Your task to perform on an android device: Open calendar and show me the third week of next month Image 0: 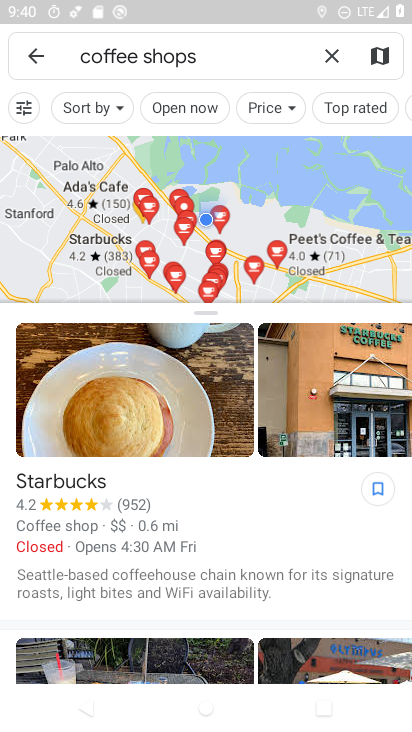
Step 0: press home button
Your task to perform on an android device: Open calendar and show me the third week of next month Image 1: 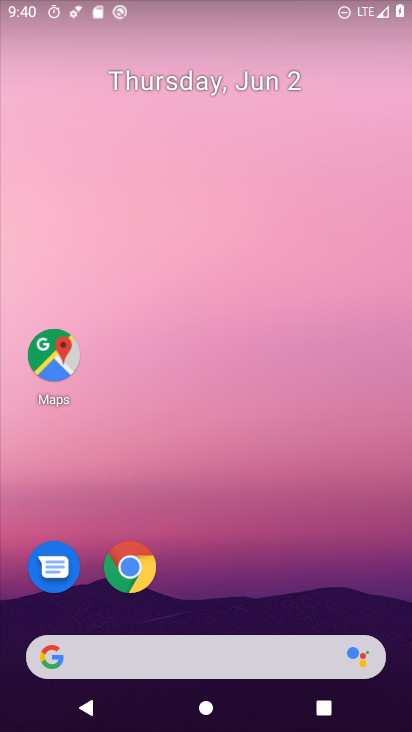
Step 1: drag from (354, 570) to (347, 96)
Your task to perform on an android device: Open calendar and show me the third week of next month Image 2: 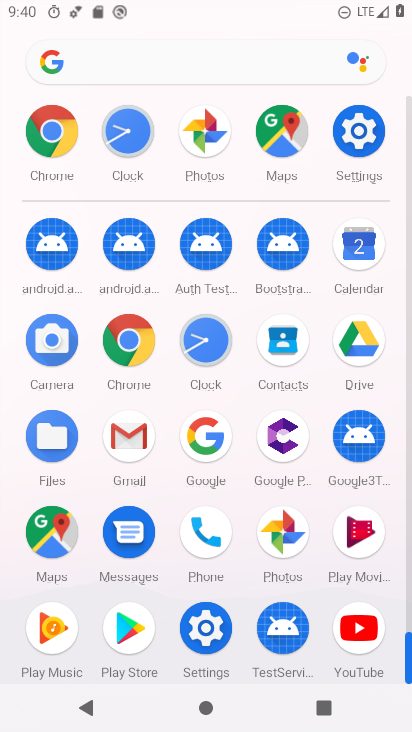
Step 2: click (363, 240)
Your task to perform on an android device: Open calendar and show me the third week of next month Image 3: 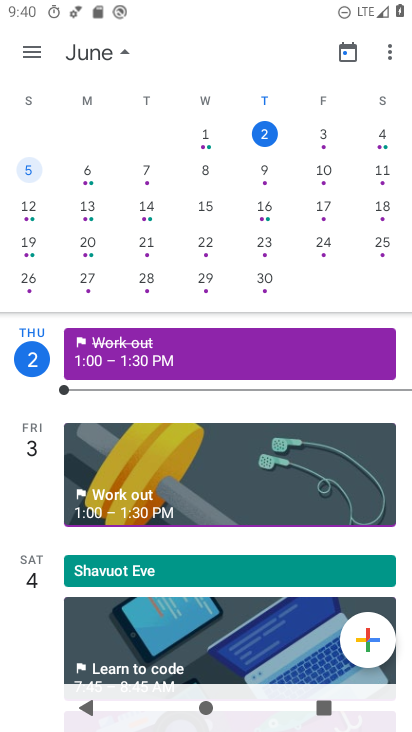
Step 3: click (27, 205)
Your task to perform on an android device: Open calendar and show me the third week of next month Image 4: 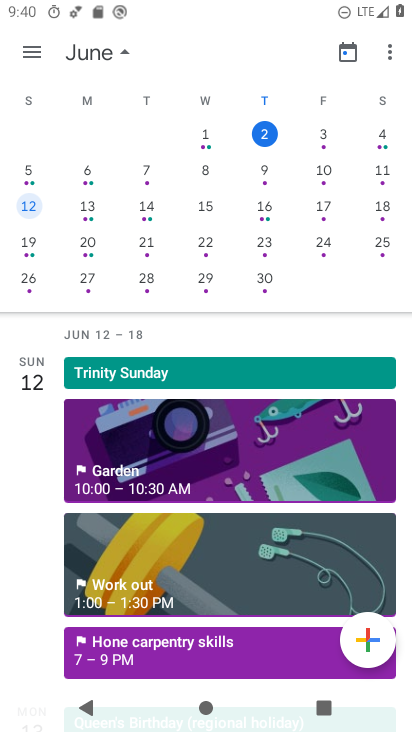
Step 4: task complete